Your task to perform on an android device: Open eBay Image 0: 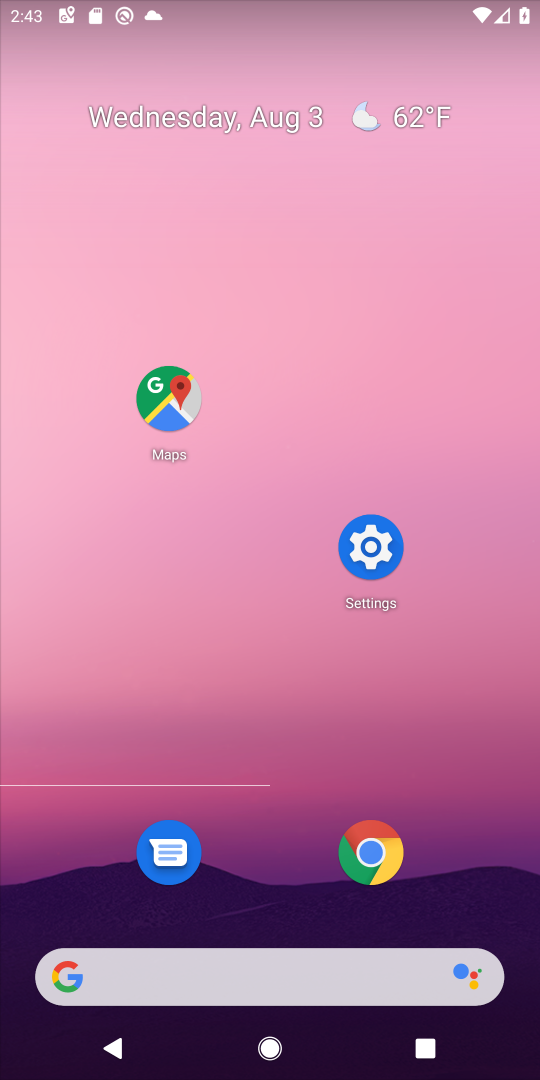
Step 0: press home button
Your task to perform on an android device: Open eBay Image 1: 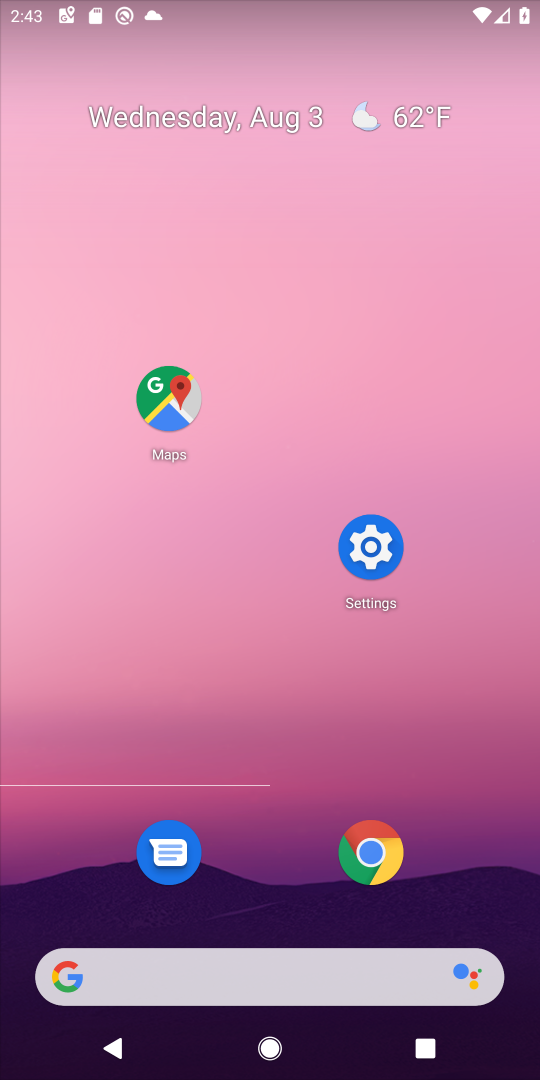
Step 1: click (355, 851)
Your task to perform on an android device: Open eBay Image 2: 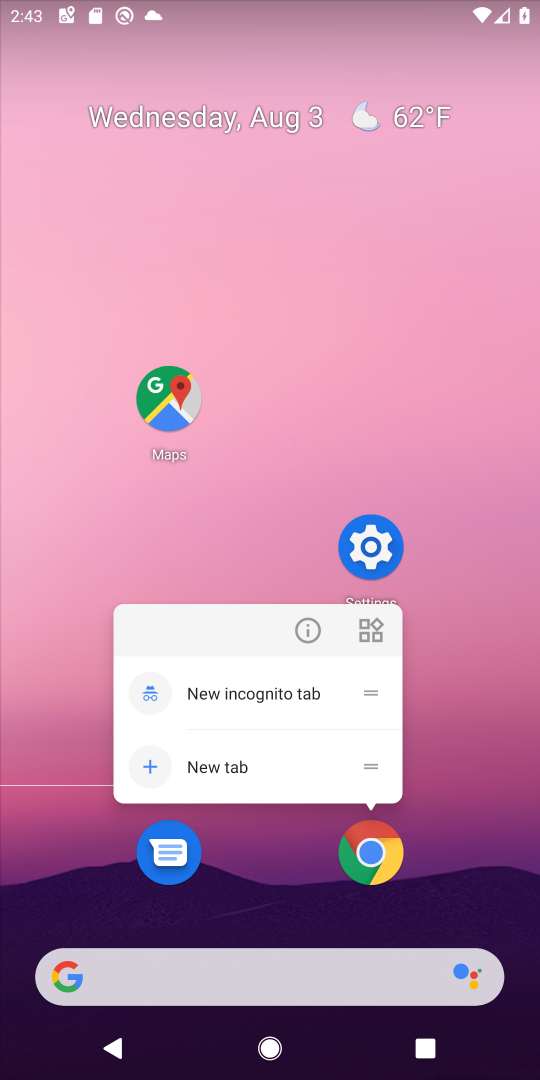
Step 2: click (366, 853)
Your task to perform on an android device: Open eBay Image 3: 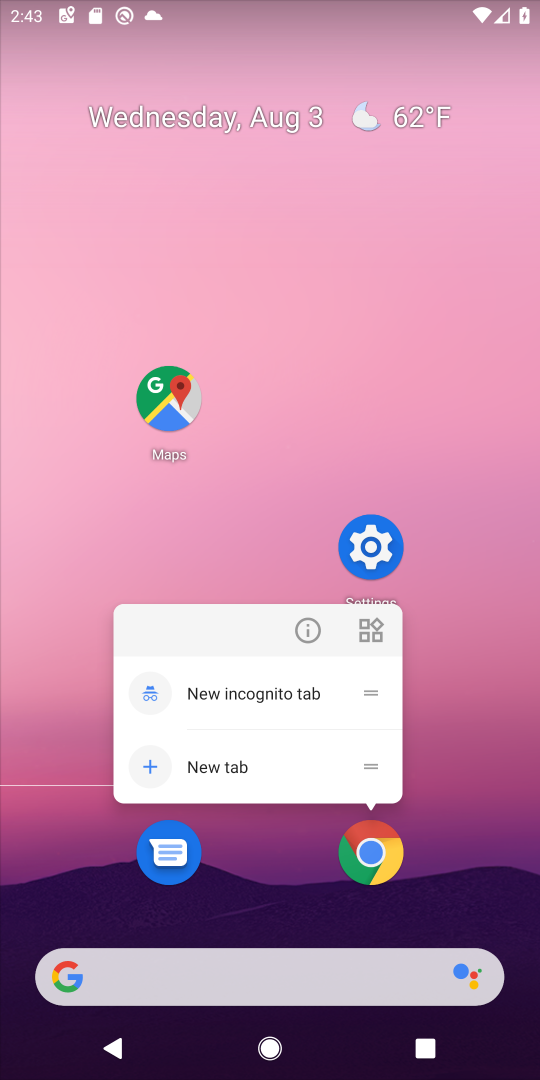
Step 3: click (376, 840)
Your task to perform on an android device: Open eBay Image 4: 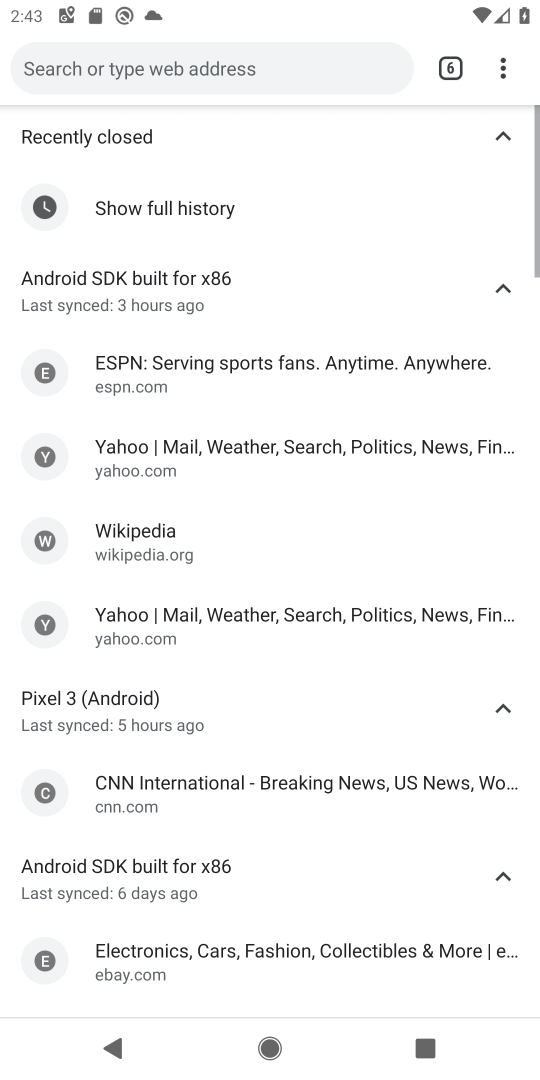
Step 4: drag from (503, 78) to (258, 204)
Your task to perform on an android device: Open eBay Image 5: 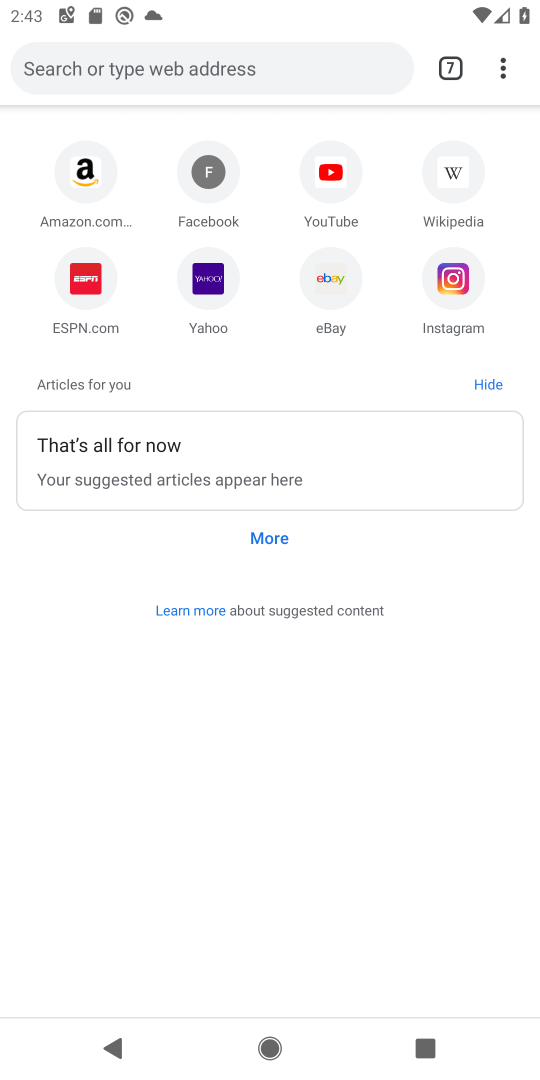
Step 5: click (323, 279)
Your task to perform on an android device: Open eBay Image 6: 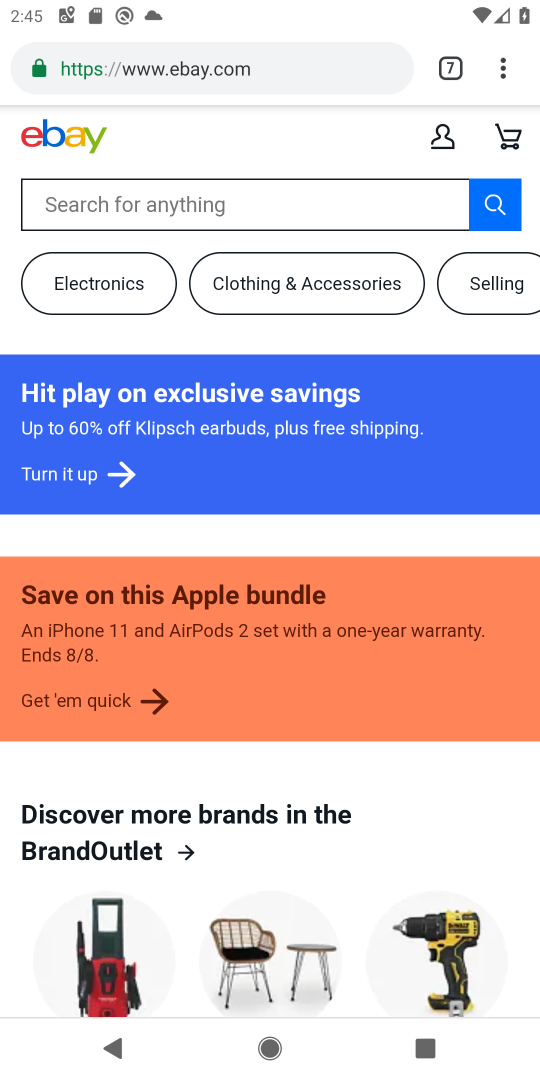
Step 6: task complete